Your task to perform on an android device: change timer sound Image 0: 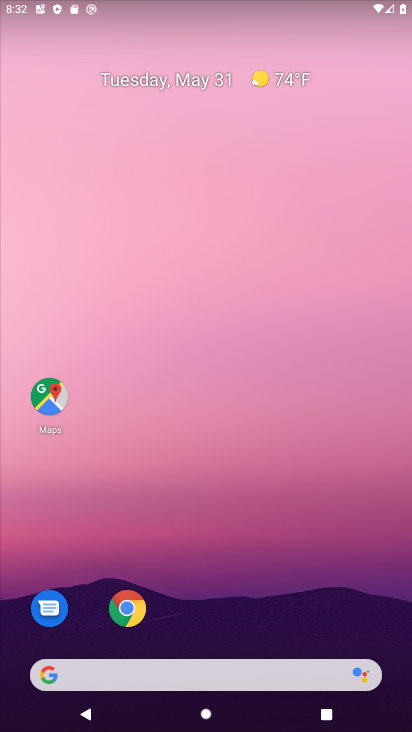
Step 0: drag from (213, 640) to (151, 110)
Your task to perform on an android device: change timer sound Image 1: 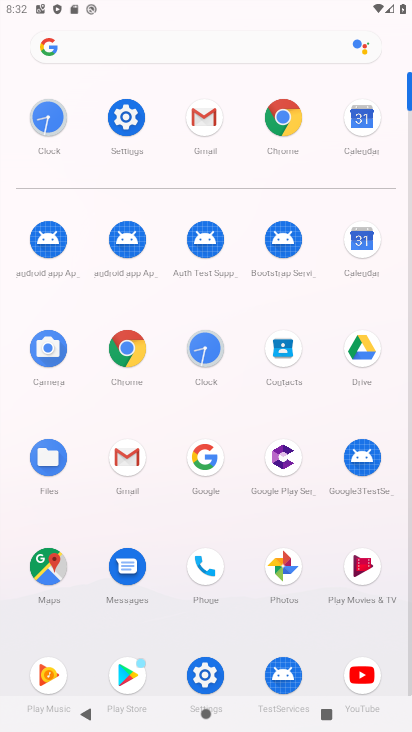
Step 1: click (210, 331)
Your task to perform on an android device: change timer sound Image 2: 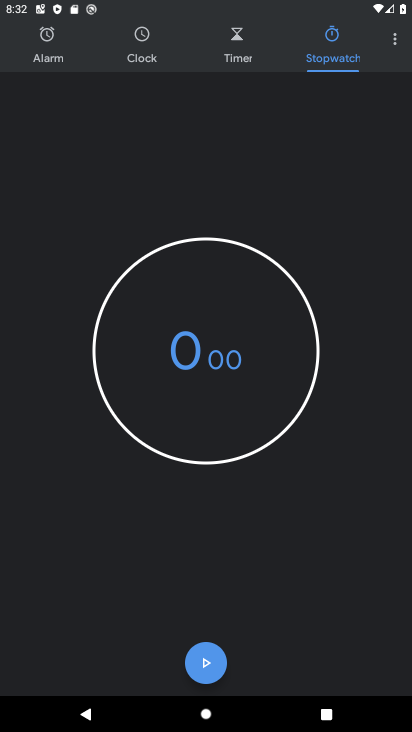
Step 2: click (389, 33)
Your task to perform on an android device: change timer sound Image 3: 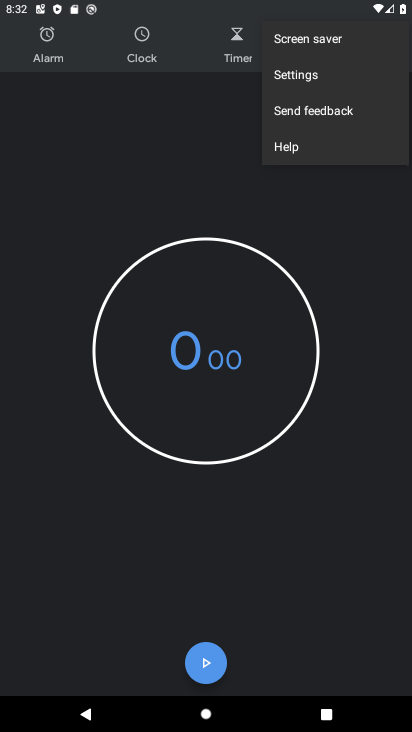
Step 3: click (286, 79)
Your task to perform on an android device: change timer sound Image 4: 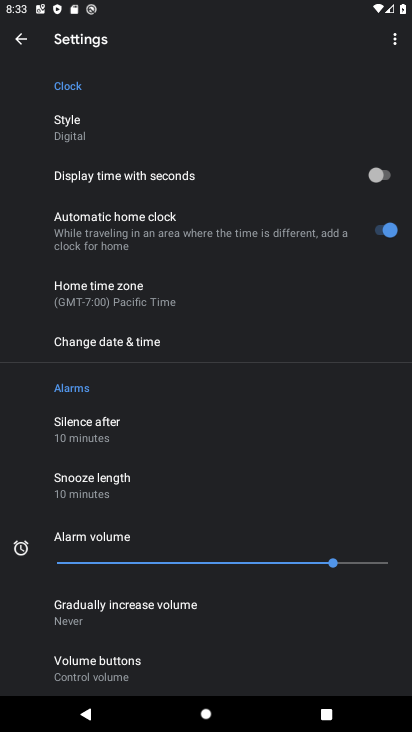
Step 4: drag from (214, 454) to (123, 50)
Your task to perform on an android device: change timer sound Image 5: 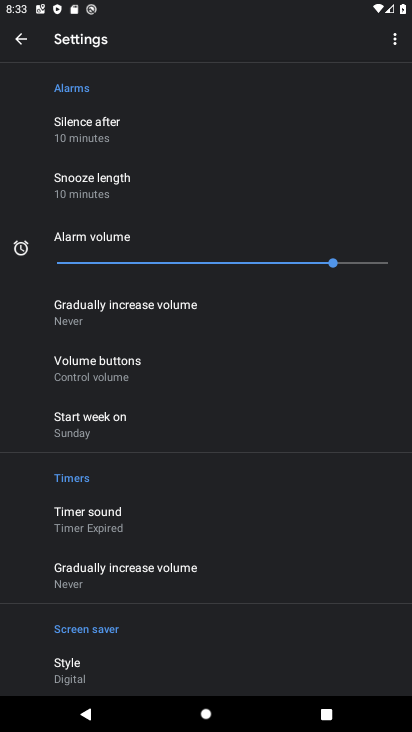
Step 5: click (120, 541)
Your task to perform on an android device: change timer sound Image 6: 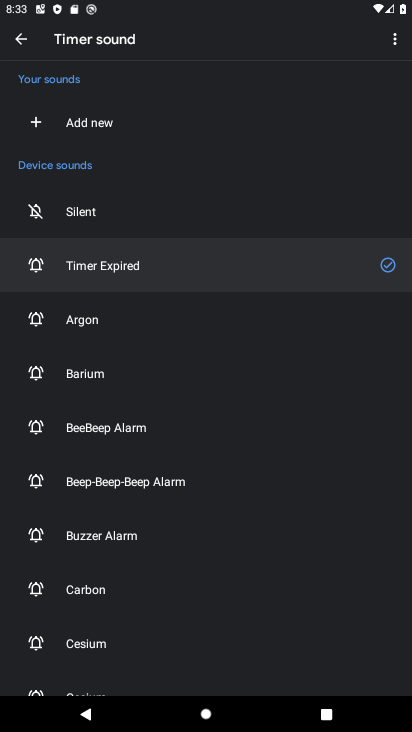
Step 6: click (42, 372)
Your task to perform on an android device: change timer sound Image 7: 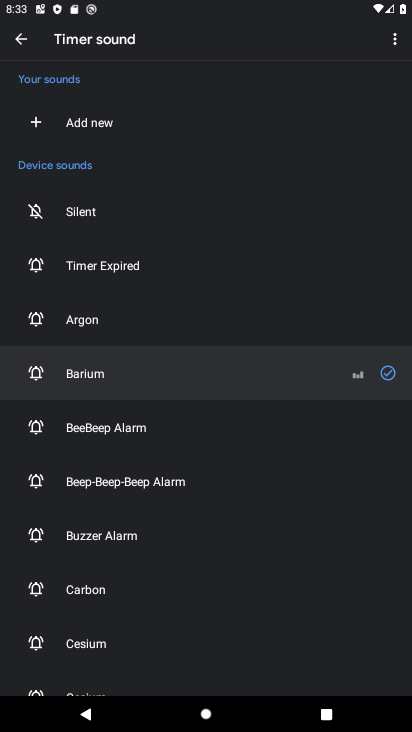
Step 7: task complete